Your task to perform on an android device: What's the weather going to be this weekend? Image 0: 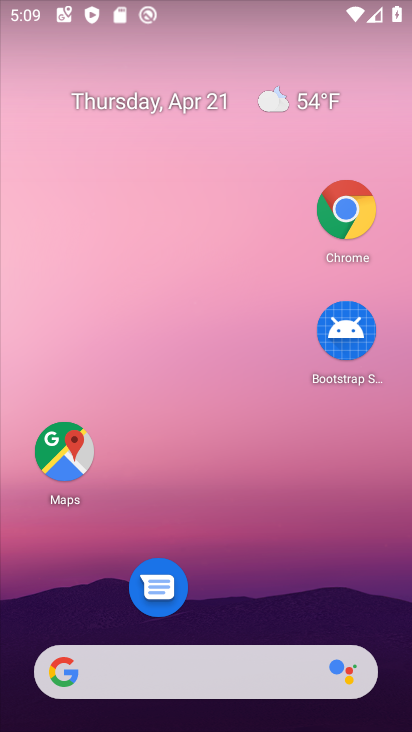
Step 0: drag from (271, 600) to (290, 123)
Your task to perform on an android device: What's the weather going to be this weekend? Image 1: 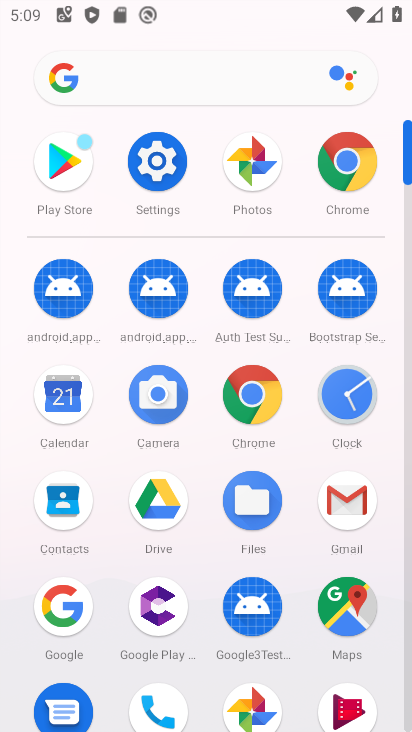
Step 1: click (256, 395)
Your task to perform on an android device: What's the weather going to be this weekend? Image 2: 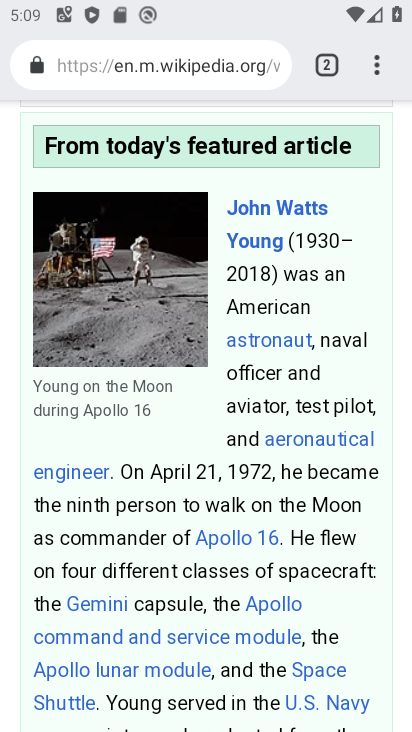
Step 2: drag from (375, 65) to (140, 206)
Your task to perform on an android device: What's the weather going to be this weekend? Image 3: 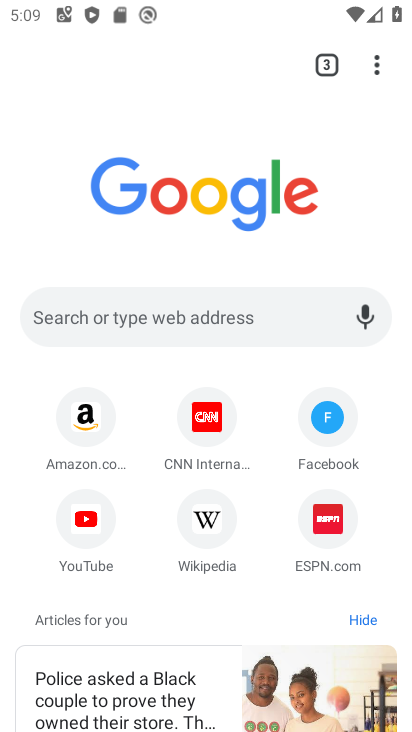
Step 3: click (243, 307)
Your task to perform on an android device: What's the weather going to be this weekend? Image 4: 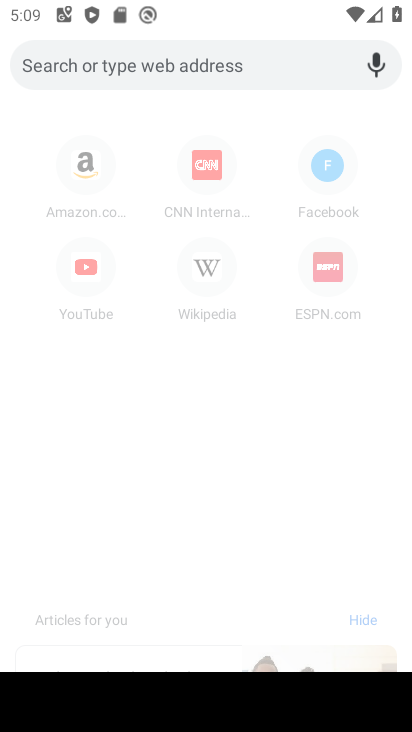
Step 4: type "What's the weather going to be this weekend?"
Your task to perform on an android device: What's the weather going to be this weekend? Image 5: 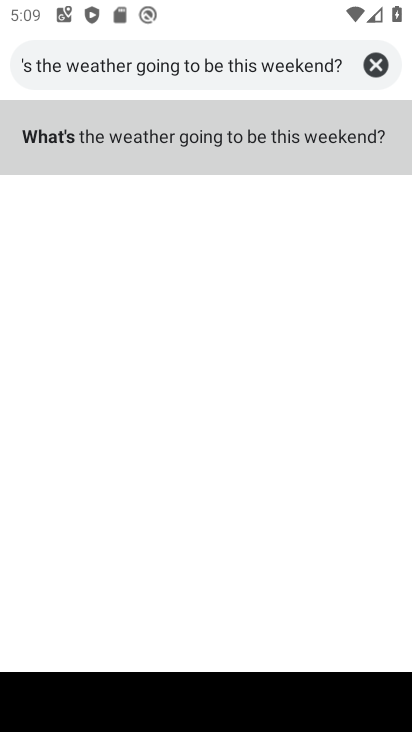
Step 5: click (208, 142)
Your task to perform on an android device: What's the weather going to be this weekend? Image 6: 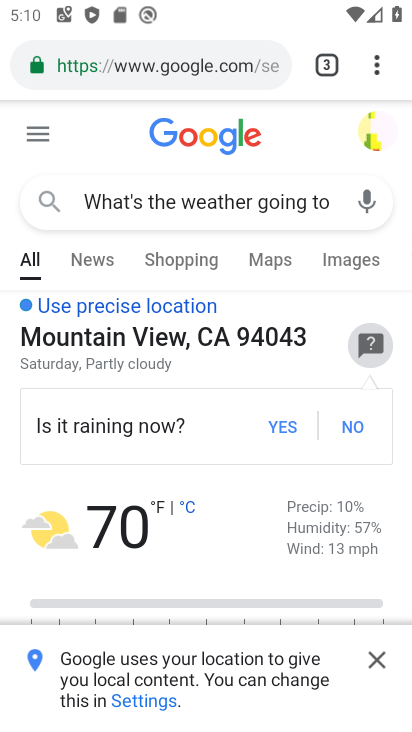
Step 6: task complete